Your task to perform on an android device: Go to Amazon Image 0: 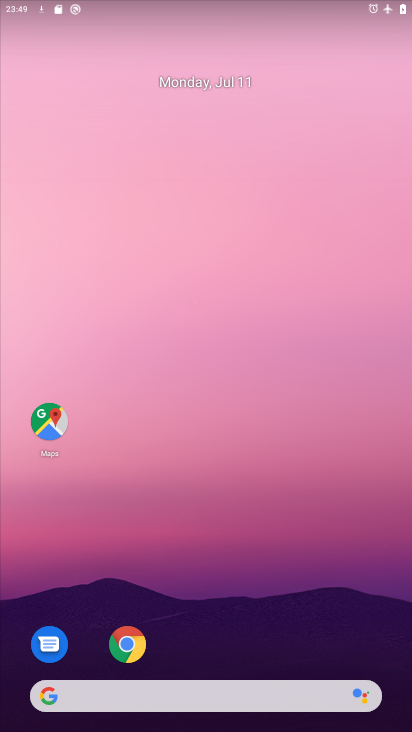
Step 0: drag from (270, 641) to (254, 181)
Your task to perform on an android device: Go to Amazon Image 1: 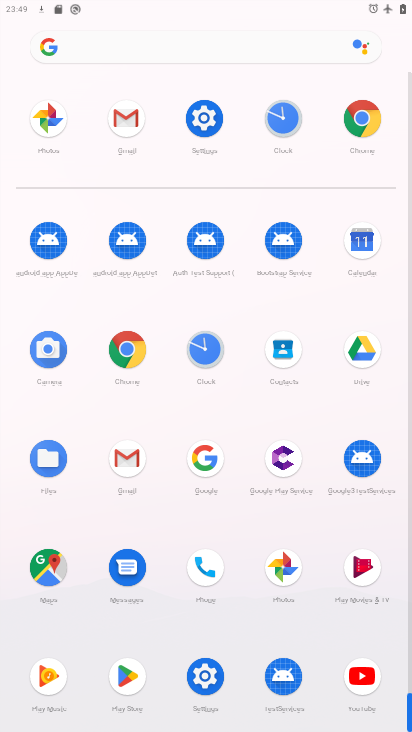
Step 1: click (377, 103)
Your task to perform on an android device: Go to Amazon Image 2: 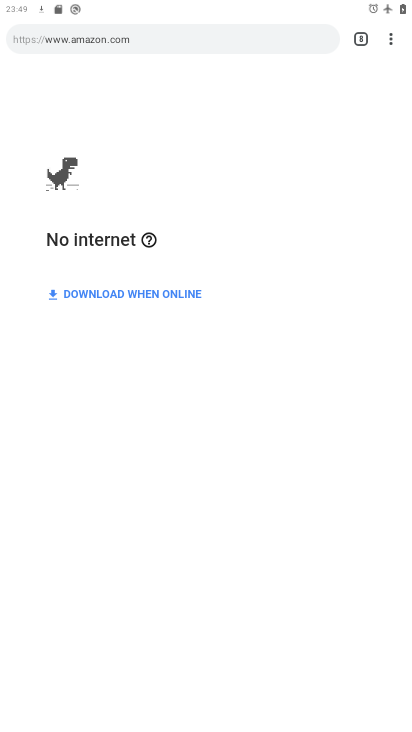
Step 2: click (395, 42)
Your task to perform on an android device: Go to Amazon Image 3: 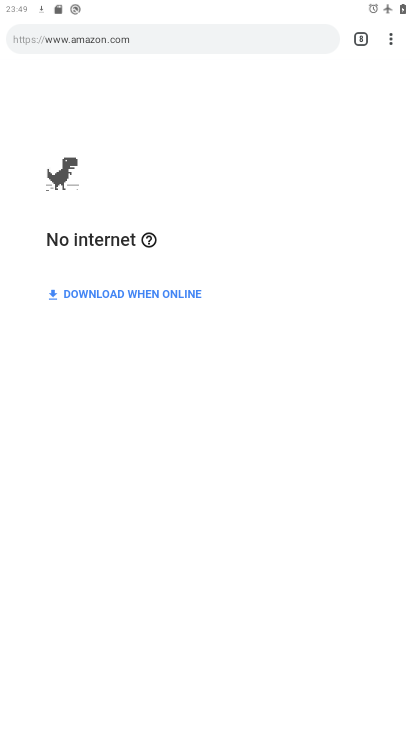
Step 3: click (395, 42)
Your task to perform on an android device: Go to Amazon Image 4: 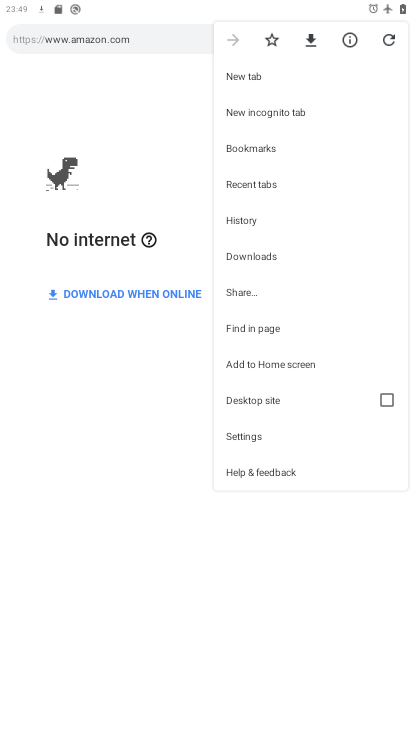
Step 4: click (260, 76)
Your task to perform on an android device: Go to Amazon Image 5: 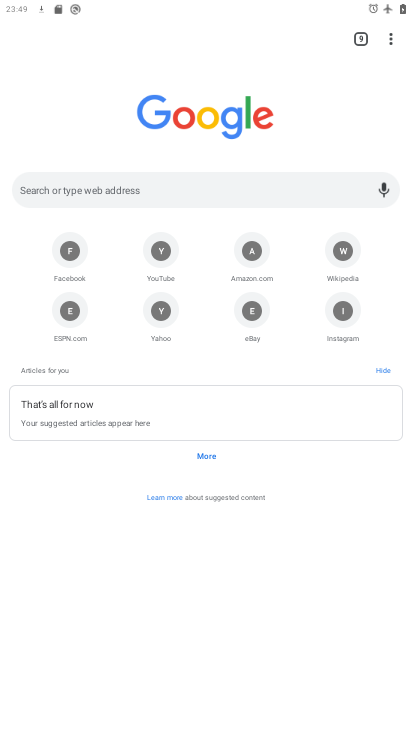
Step 5: click (258, 242)
Your task to perform on an android device: Go to Amazon Image 6: 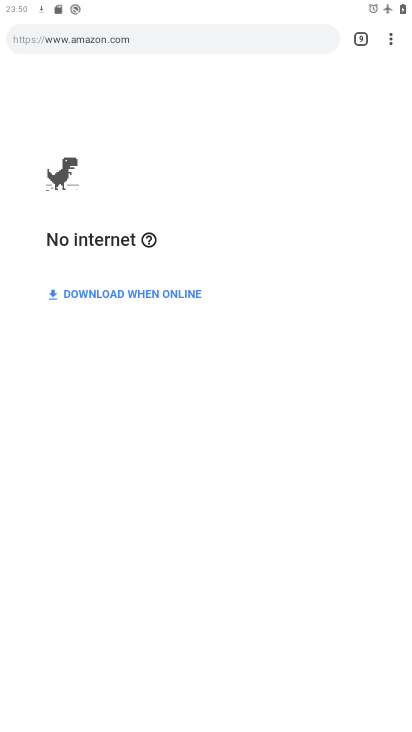
Step 6: task complete